Your task to perform on an android device: Open settings on Google Maps Image 0: 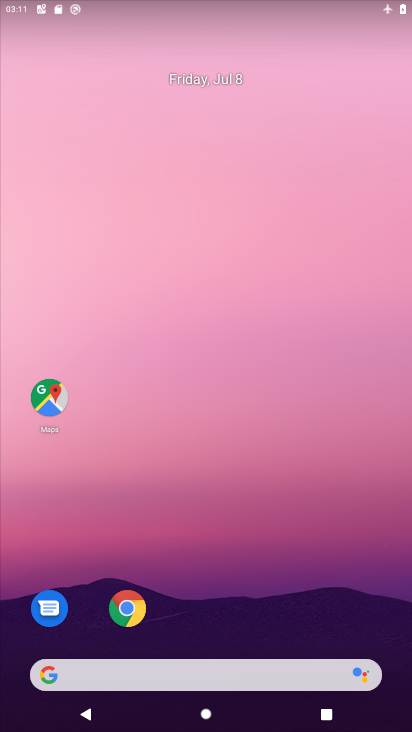
Step 0: drag from (292, 634) to (319, 276)
Your task to perform on an android device: Open settings on Google Maps Image 1: 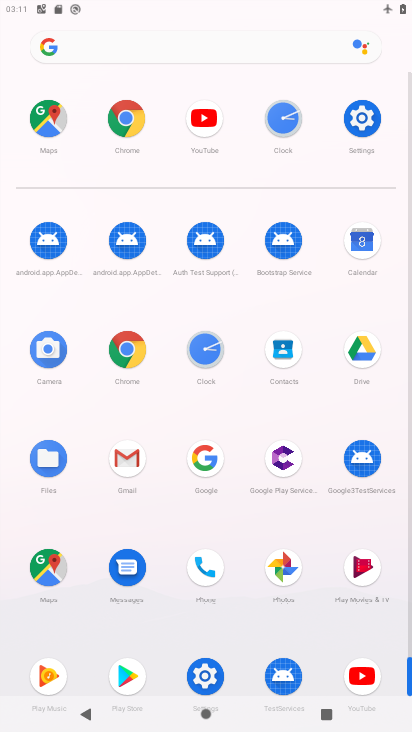
Step 1: click (55, 561)
Your task to perform on an android device: Open settings on Google Maps Image 2: 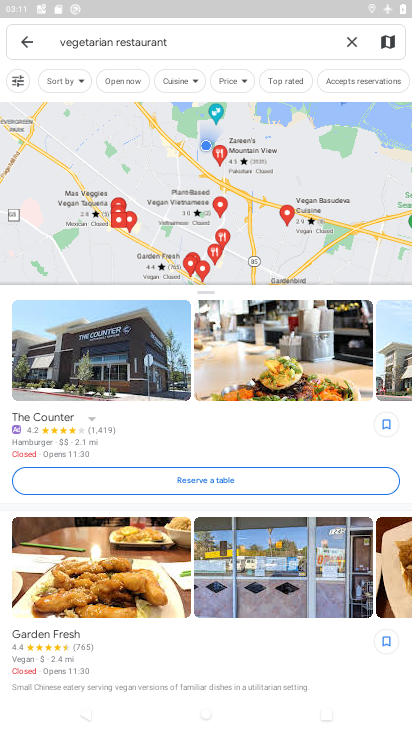
Step 2: click (354, 46)
Your task to perform on an android device: Open settings on Google Maps Image 3: 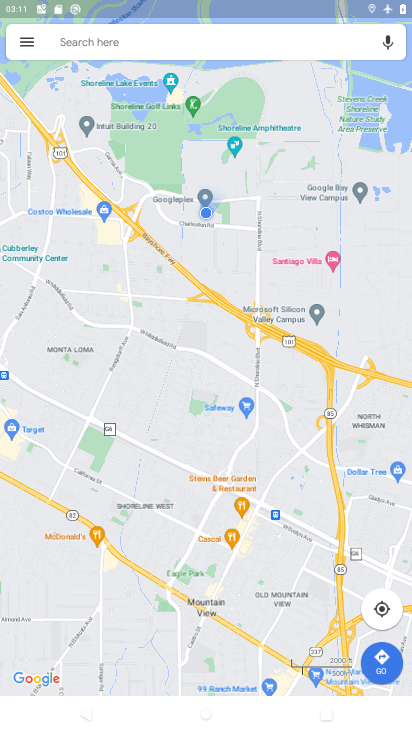
Step 3: click (26, 31)
Your task to perform on an android device: Open settings on Google Maps Image 4: 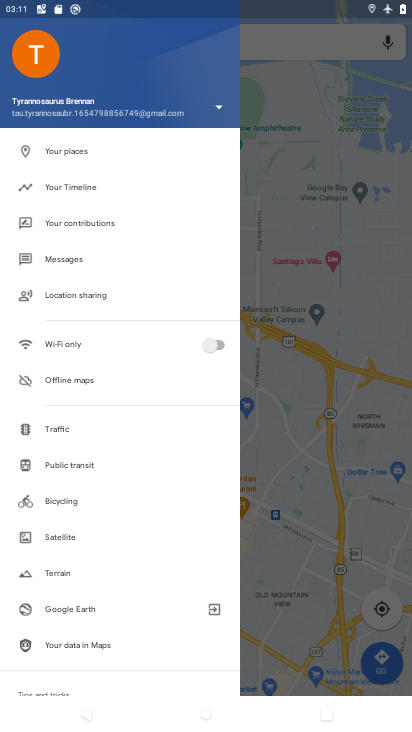
Step 4: drag from (90, 621) to (129, 232)
Your task to perform on an android device: Open settings on Google Maps Image 5: 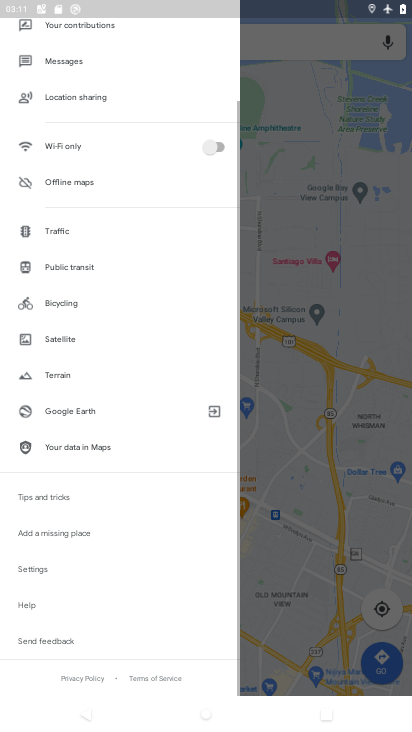
Step 5: click (39, 567)
Your task to perform on an android device: Open settings on Google Maps Image 6: 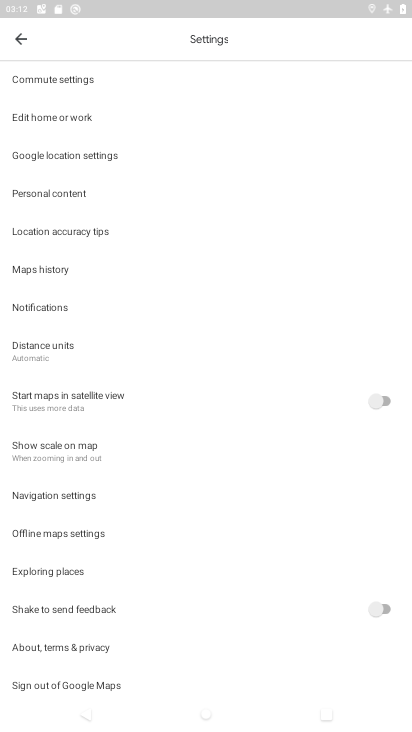
Step 6: task complete